Your task to perform on an android device: Go to Reddit.com Image 0: 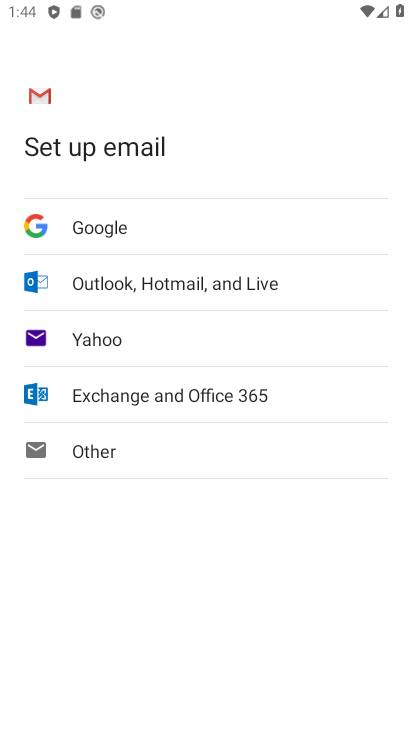
Step 0: press home button
Your task to perform on an android device: Go to Reddit.com Image 1: 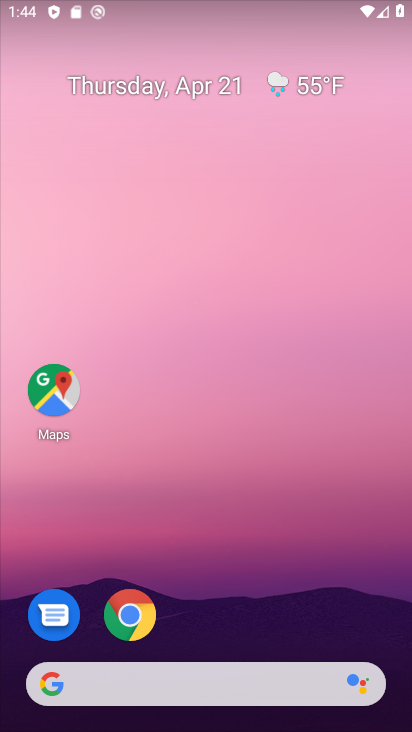
Step 1: click (131, 618)
Your task to perform on an android device: Go to Reddit.com Image 2: 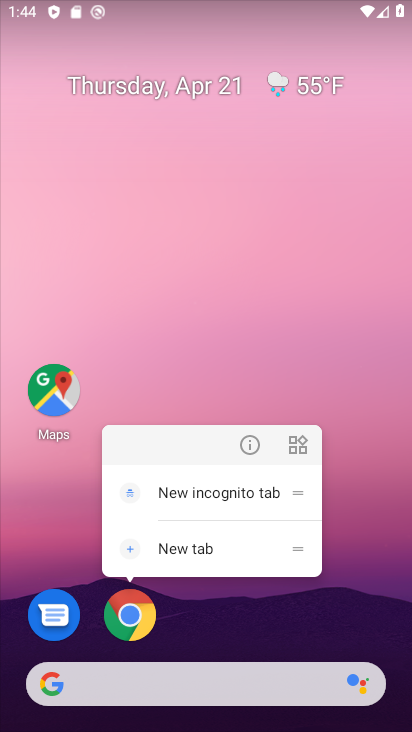
Step 2: click (131, 618)
Your task to perform on an android device: Go to Reddit.com Image 3: 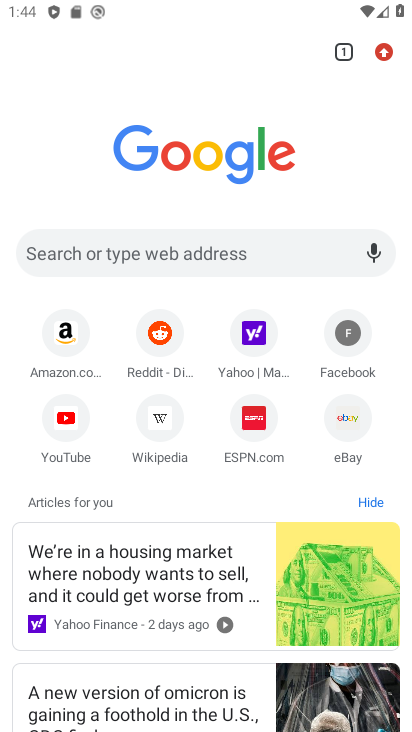
Step 3: click (166, 340)
Your task to perform on an android device: Go to Reddit.com Image 4: 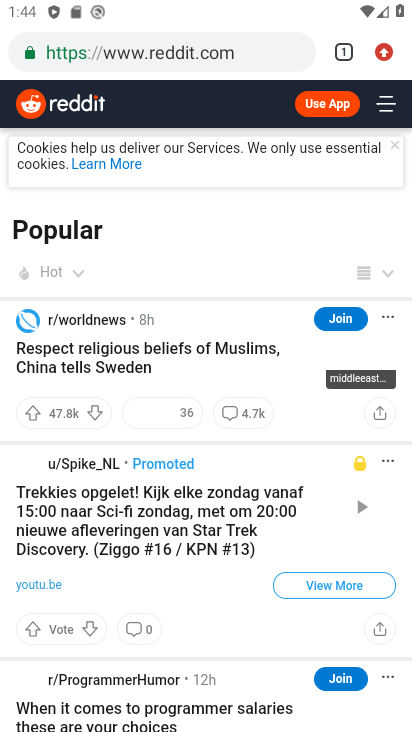
Step 4: task complete